Your task to perform on an android device: What's on my calendar tomorrow? Image 0: 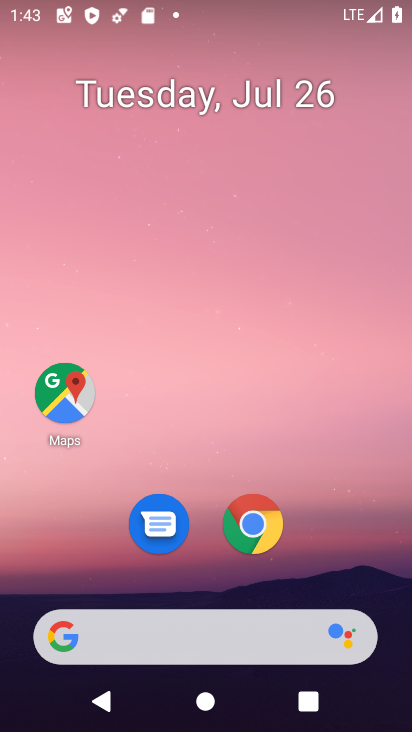
Step 0: drag from (293, 545) to (317, 39)
Your task to perform on an android device: What's on my calendar tomorrow? Image 1: 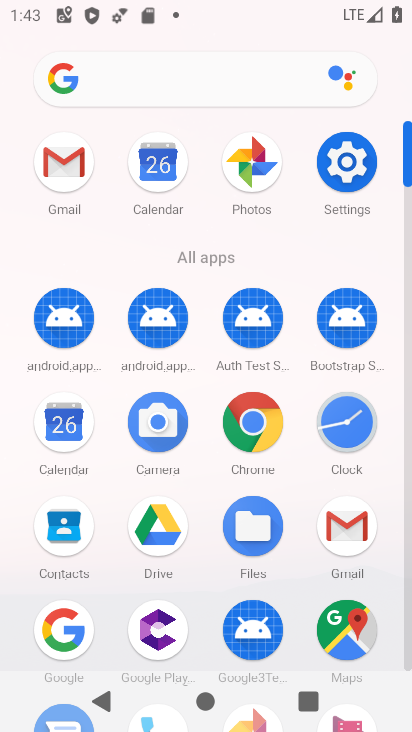
Step 1: click (61, 418)
Your task to perform on an android device: What's on my calendar tomorrow? Image 2: 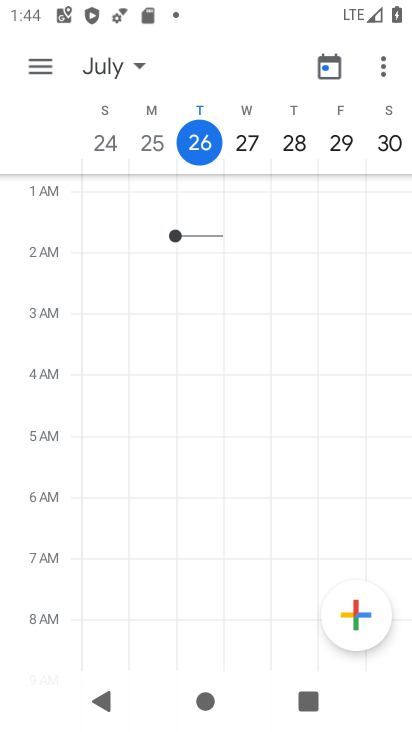
Step 2: task complete